Your task to perform on an android device: Open my contact list Image 0: 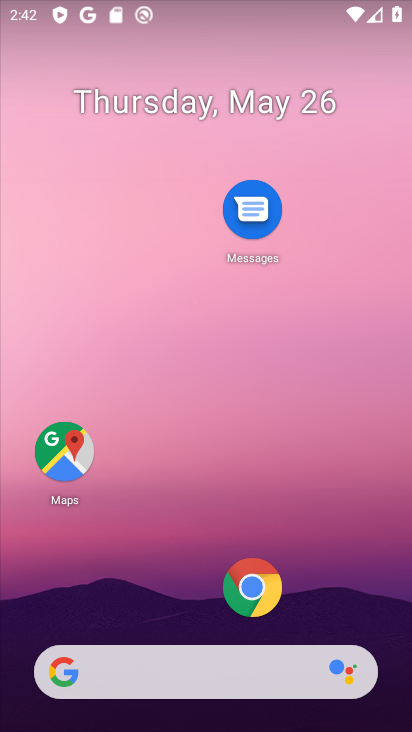
Step 0: drag from (167, 624) to (193, 41)
Your task to perform on an android device: Open my contact list Image 1: 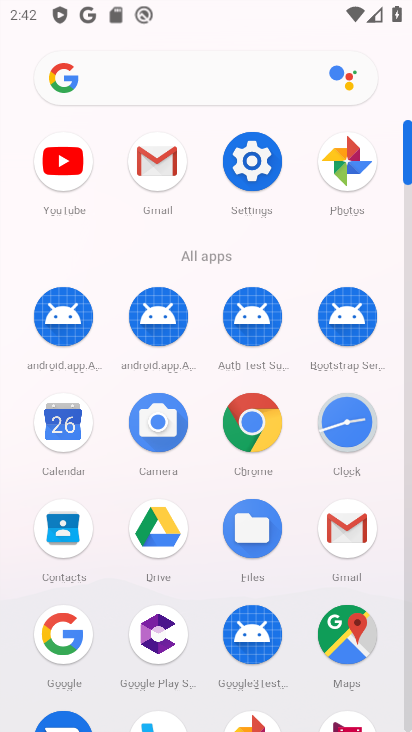
Step 1: click (61, 537)
Your task to perform on an android device: Open my contact list Image 2: 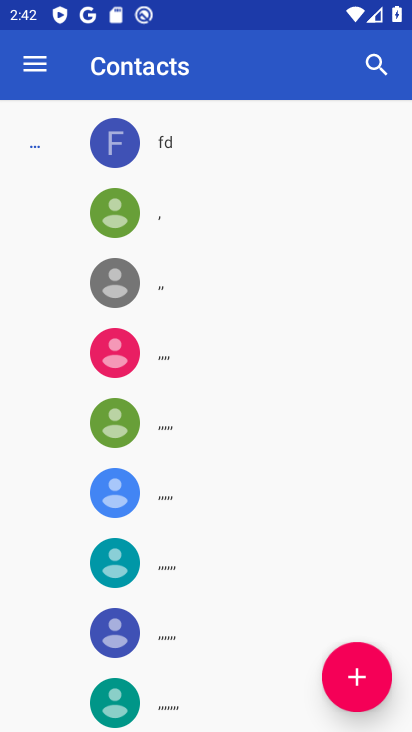
Step 2: task complete